Your task to perform on an android device: Clear all items from cart on bestbuy. Image 0: 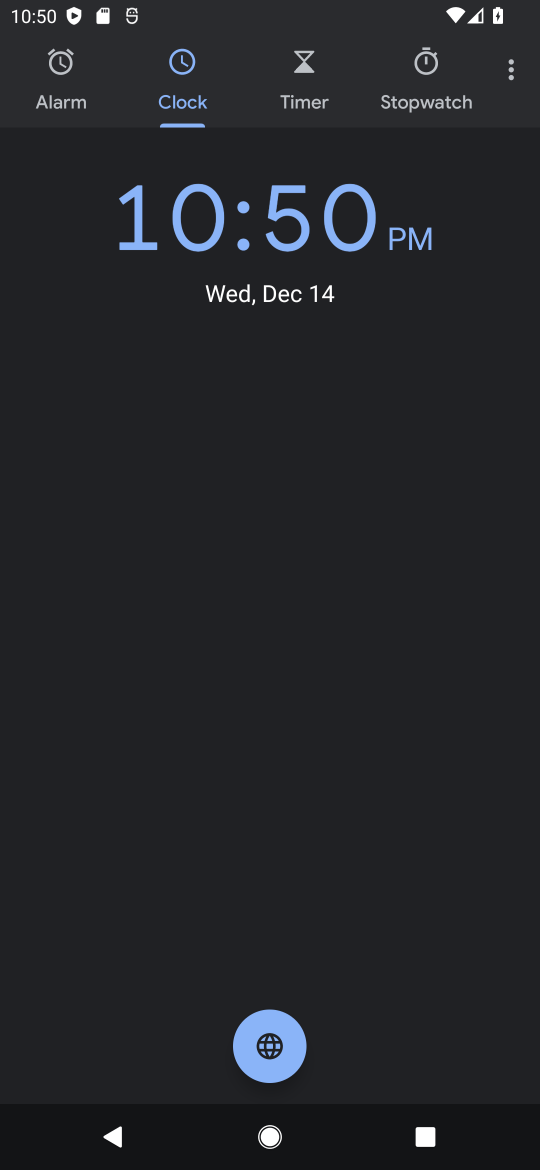
Step 0: press home button
Your task to perform on an android device: Clear all items from cart on bestbuy. Image 1: 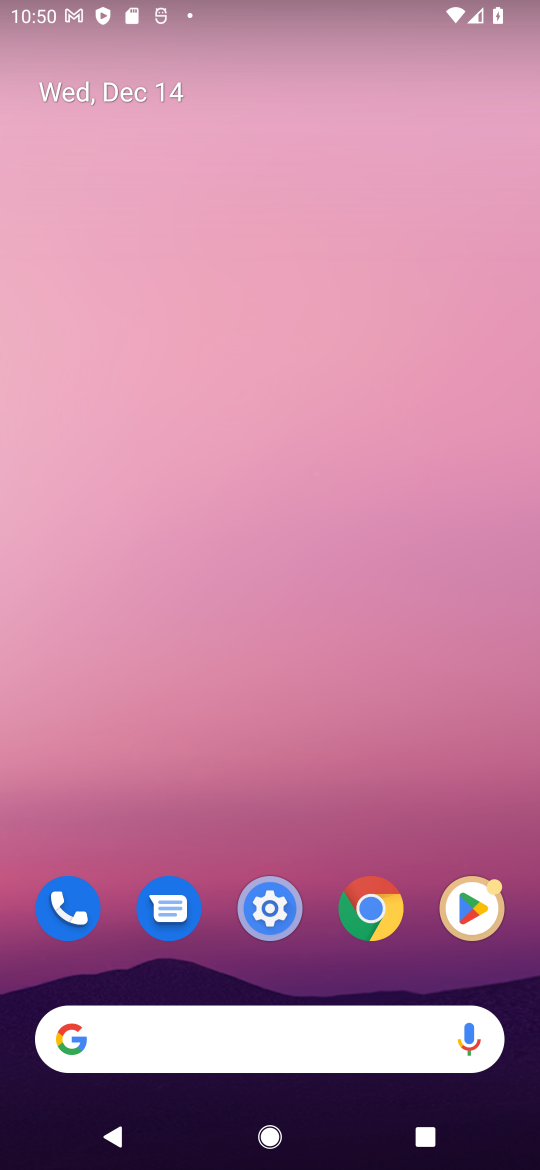
Step 1: click (377, 915)
Your task to perform on an android device: Clear all items from cart on bestbuy. Image 2: 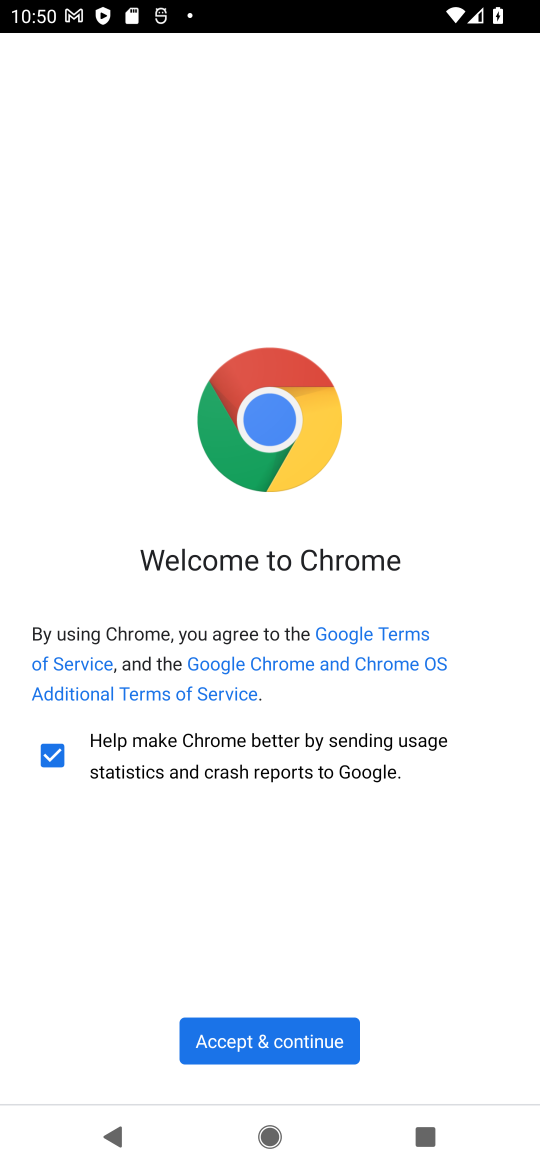
Step 2: click (266, 1032)
Your task to perform on an android device: Clear all items from cart on bestbuy. Image 3: 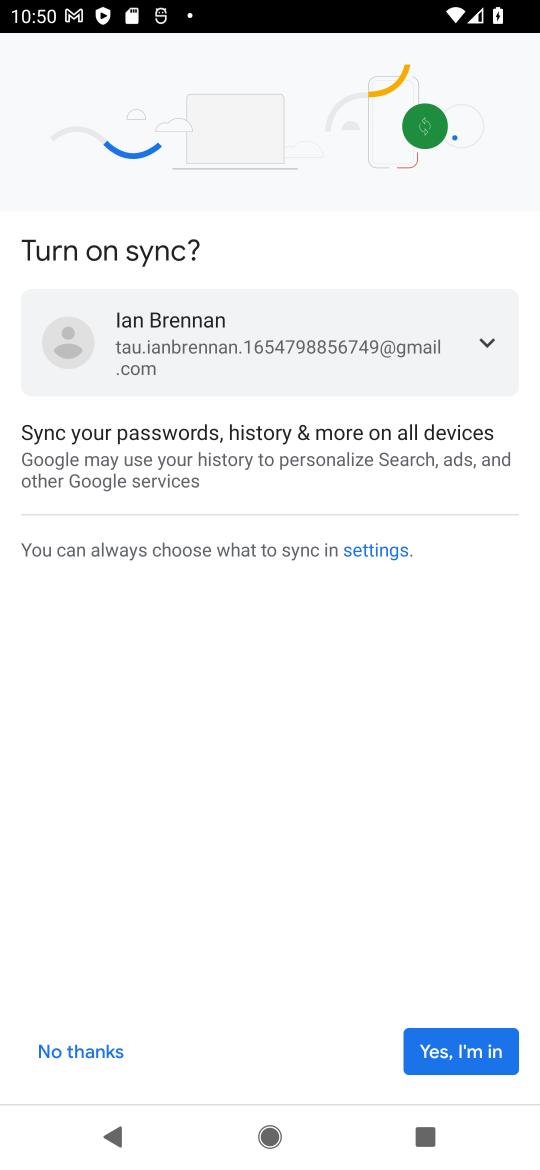
Step 3: click (67, 1061)
Your task to perform on an android device: Clear all items from cart on bestbuy. Image 4: 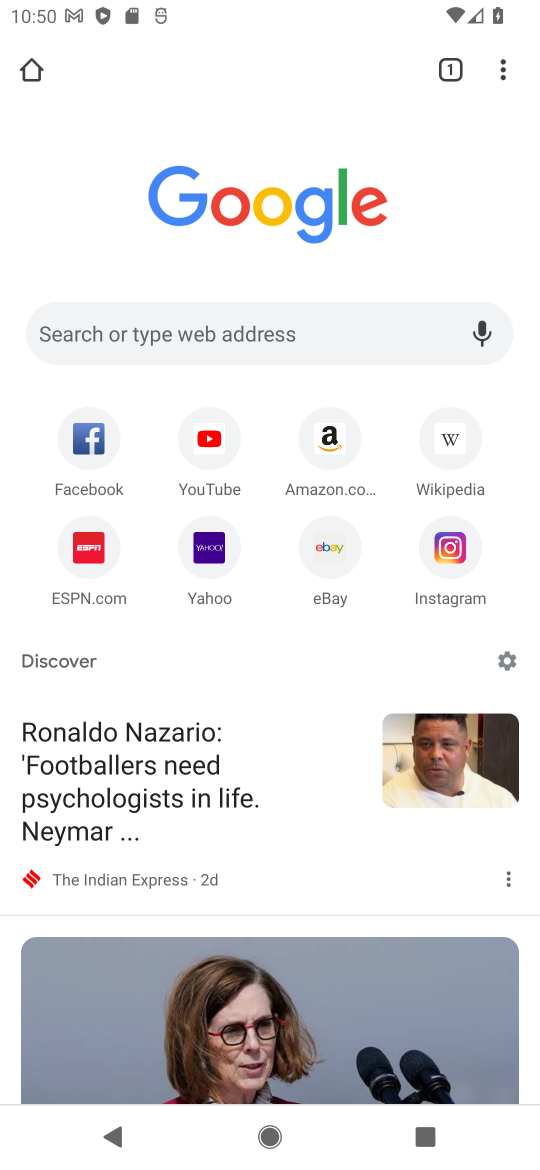
Step 4: click (155, 327)
Your task to perform on an android device: Clear all items from cart on bestbuy. Image 5: 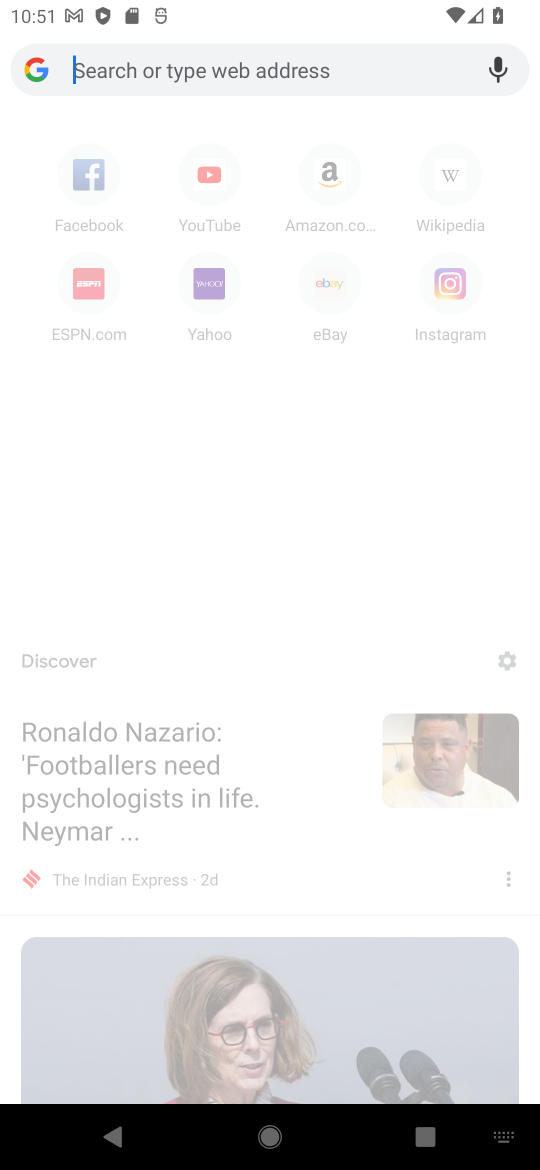
Step 5: type "bestbuy.com"
Your task to perform on an android device: Clear all items from cart on bestbuy. Image 6: 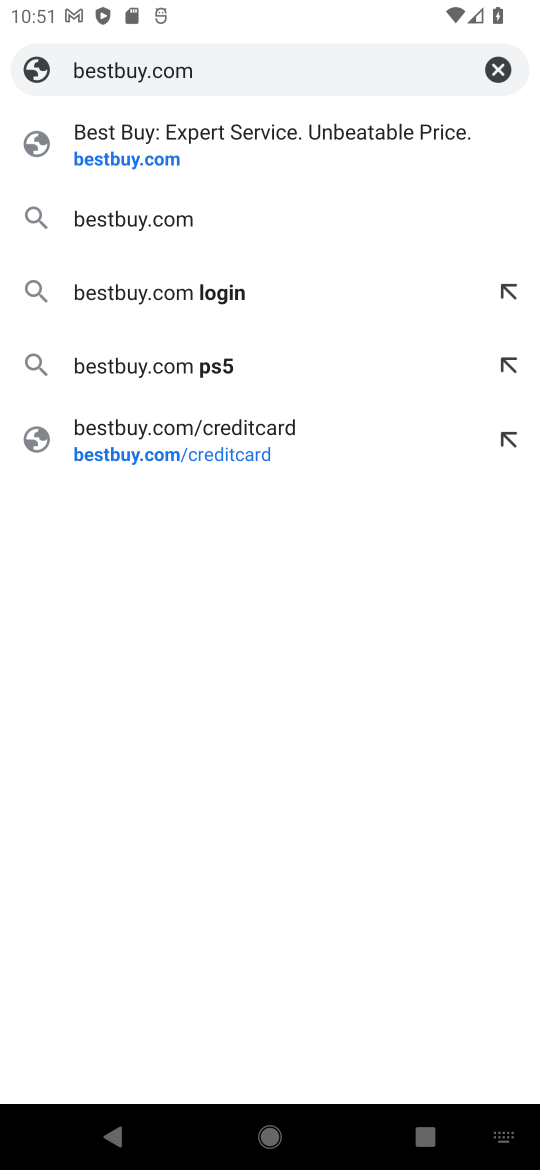
Step 6: click (149, 176)
Your task to perform on an android device: Clear all items from cart on bestbuy. Image 7: 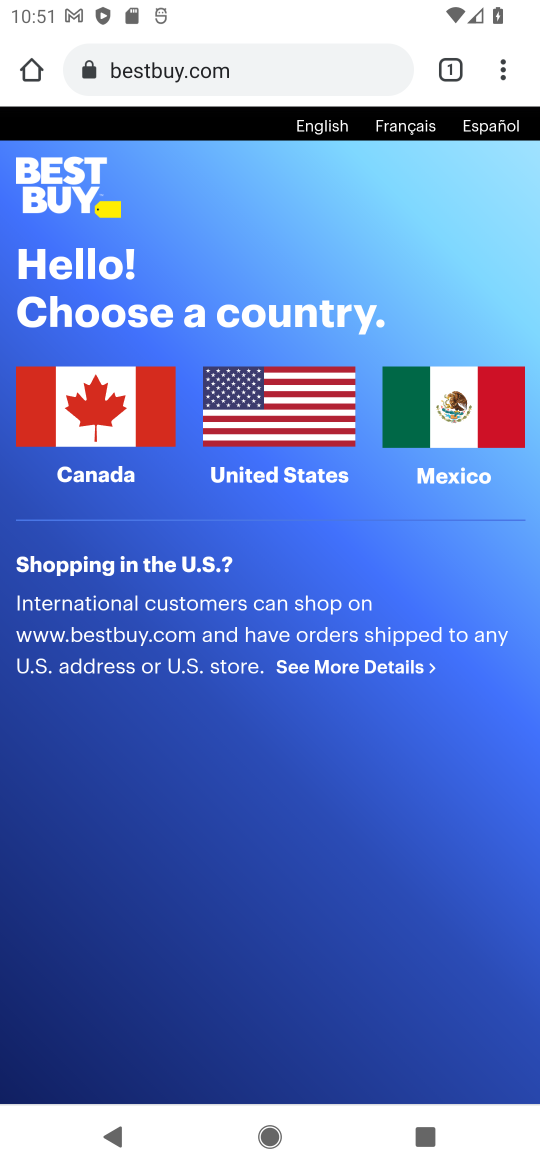
Step 7: click (276, 430)
Your task to perform on an android device: Clear all items from cart on bestbuy. Image 8: 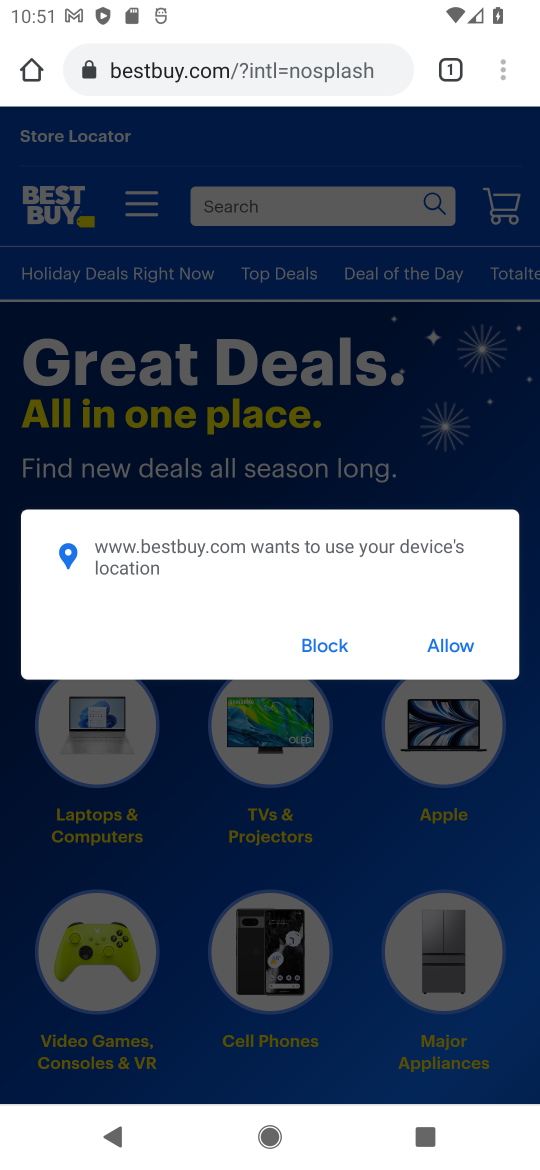
Step 8: click (324, 638)
Your task to perform on an android device: Clear all items from cart on bestbuy. Image 9: 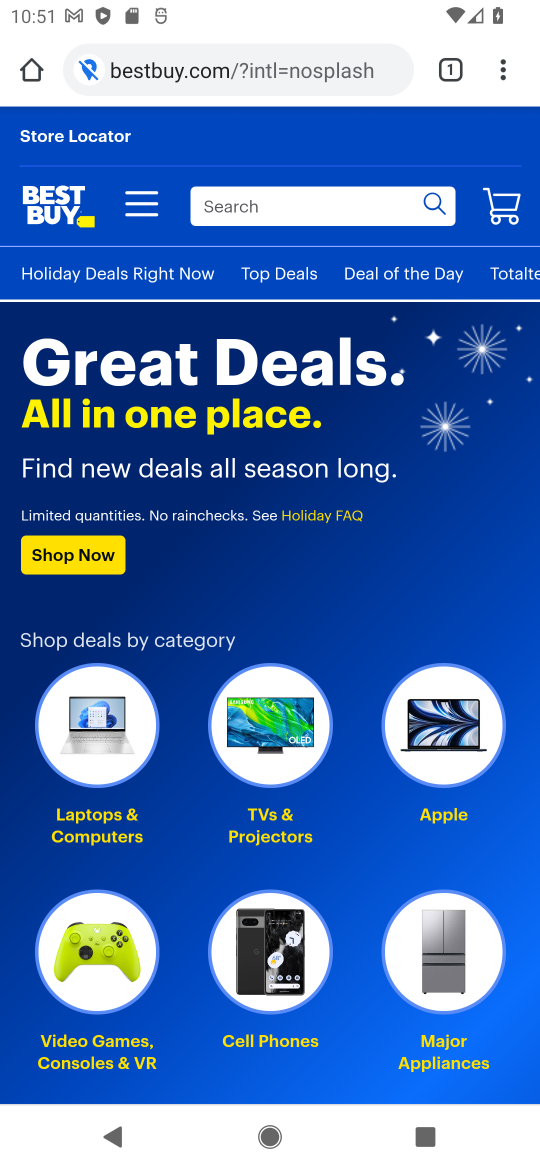
Step 9: click (497, 214)
Your task to perform on an android device: Clear all items from cart on bestbuy. Image 10: 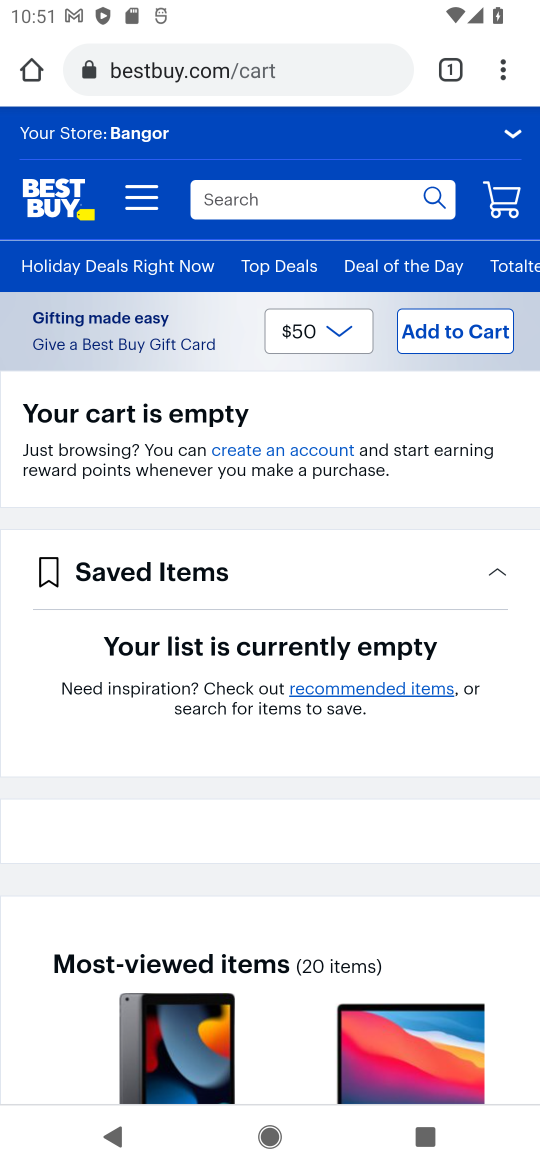
Step 10: task complete